Your task to perform on an android device: turn pop-ups on in chrome Image 0: 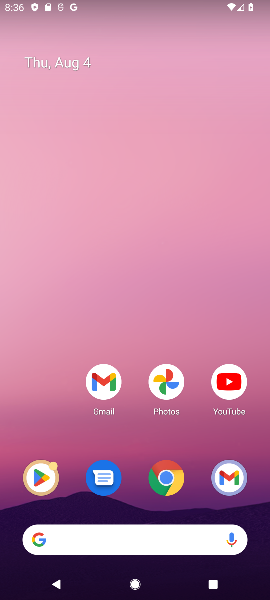
Step 0: press home button
Your task to perform on an android device: turn pop-ups on in chrome Image 1: 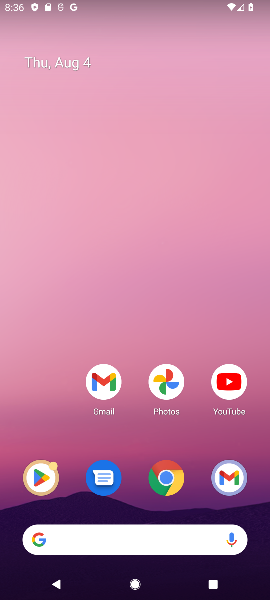
Step 1: press home button
Your task to perform on an android device: turn pop-ups on in chrome Image 2: 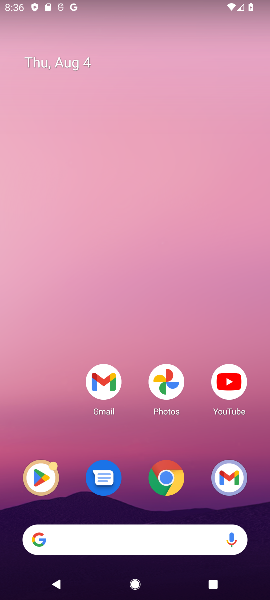
Step 2: press home button
Your task to perform on an android device: turn pop-ups on in chrome Image 3: 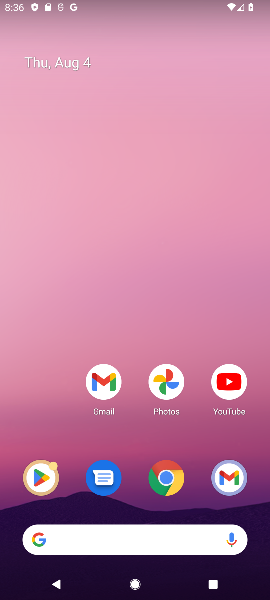
Step 3: press home button
Your task to perform on an android device: turn pop-ups on in chrome Image 4: 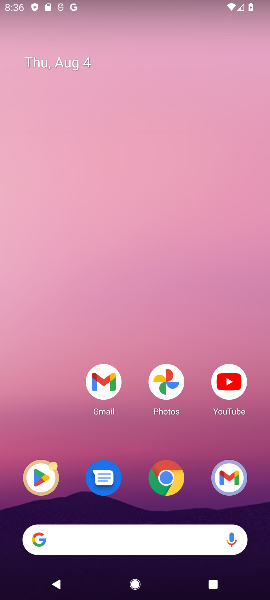
Step 4: click (164, 468)
Your task to perform on an android device: turn pop-ups on in chrome Image 5: 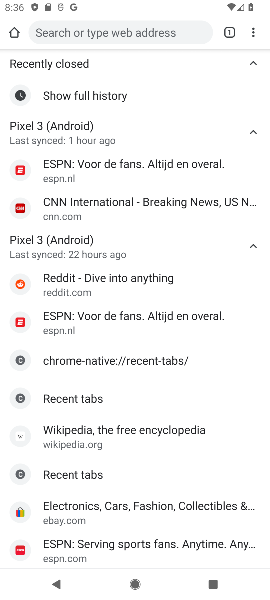
Step 5: drag from (251, 25) to (140, 278)
Your task to perform on an android device: turn pop-ups on in chrome Image 6: 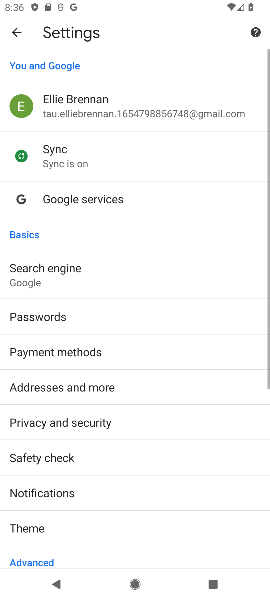
Step 6: drag from (80, 542) to (105, 184)
Your task to perform on an android device: turn pop-ups on in chrome Image 7: 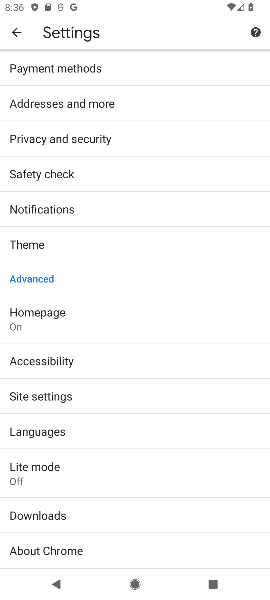
Step 7: click (41, 401)
Your task to perform on an android device: turn pop-ups on in chrome Image 8: 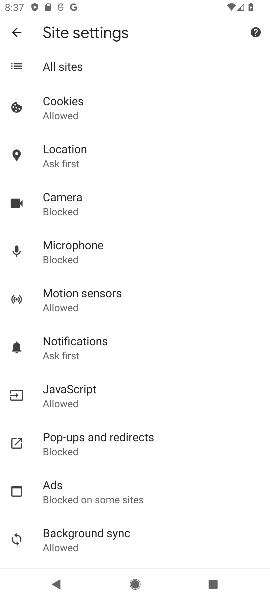
Step 8: click (58, 443)
Your task to perform on an android device: turn pop-ups on in chrome Image 9: 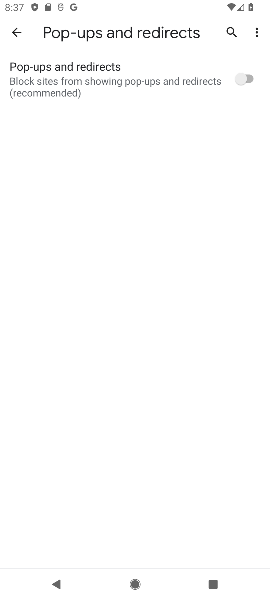
Step 9: click (171, 74)
Your task to perform on an android device: turn pop-ups on in chrome Image 10: 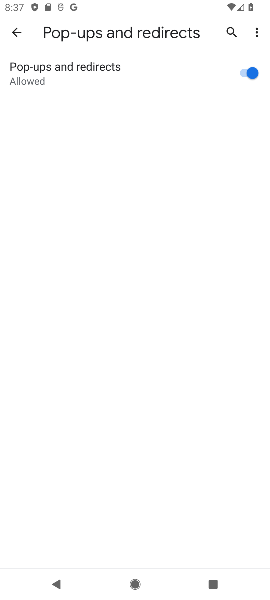
Step 10: task complete